Your task to perform on an android device: clear history in the chrome app Image 0: 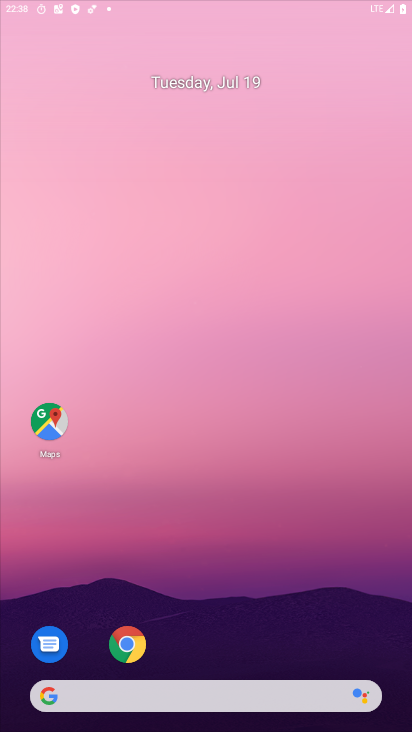
Step 0: press home button
Your task to perform on an android device: clear history in the chrome app Image 1: 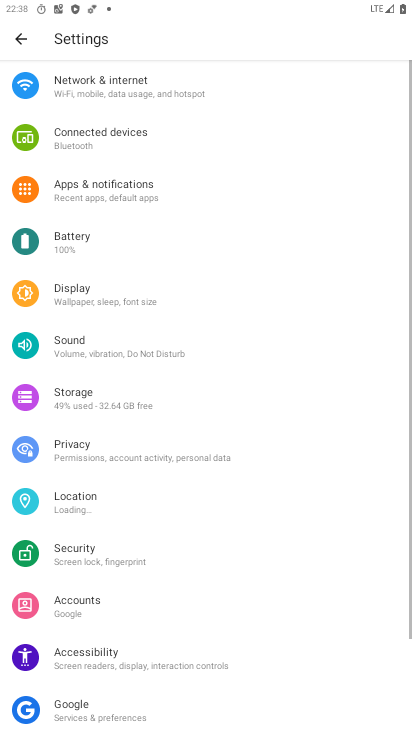
Step 1: drag from (315, 367) to (250, 57)
Your task to perform on an android device: clear history in the chrome app Image 2: 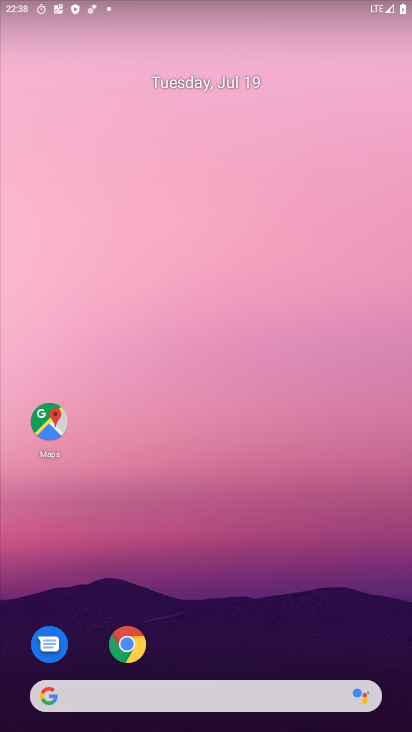
Step 2: drag from (290, 660) to (392, 14)
Your task to perform on an android device: clear history in the chrome app Image 3: 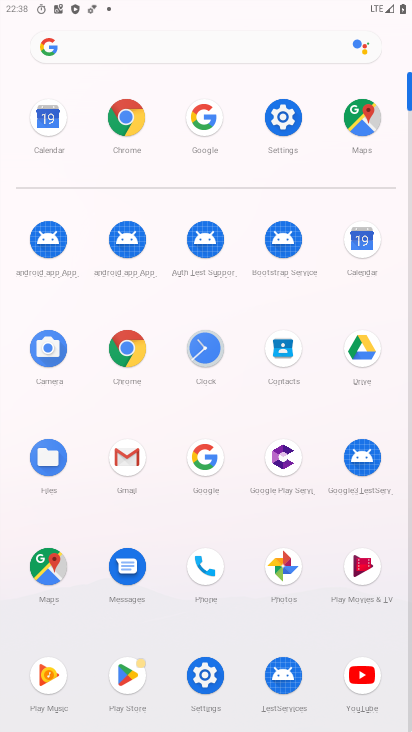
Step 3: click (123, 340)
Your task to perform on an android device: clear history in the chrome app Image 4: 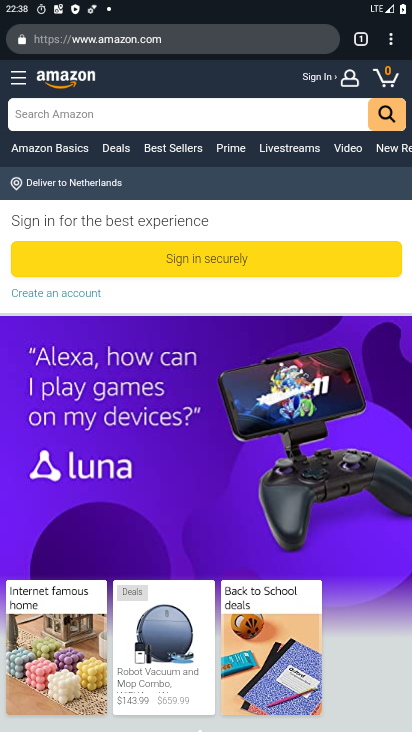
Step 4: drag from (396, 30) to (265, 228)
Your task to perform on an android device: clear history in the chrome app Image 5: 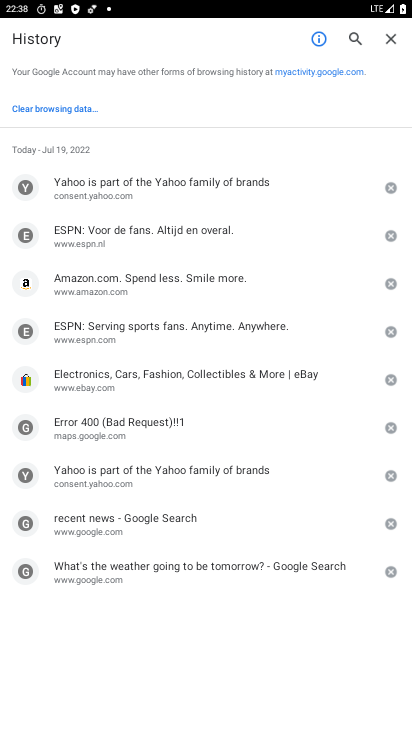
Step 5: click (48, 111)
Your task to perform on an android device: clear history in the chrome app Image 6: 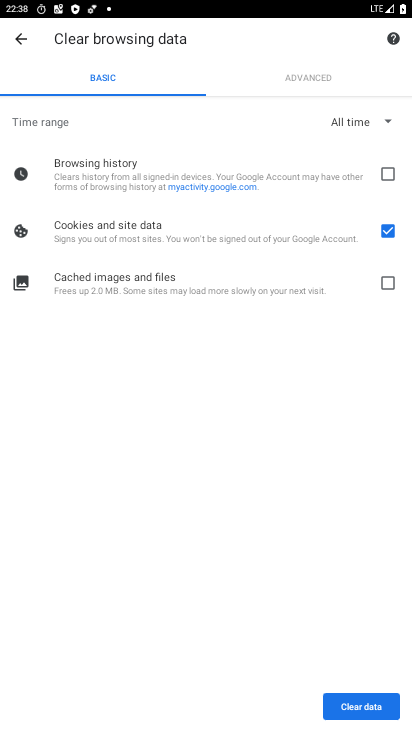
Step 6: click (299, 187)
Your task to perform on an android device: clear history in the chrome app Image 7: 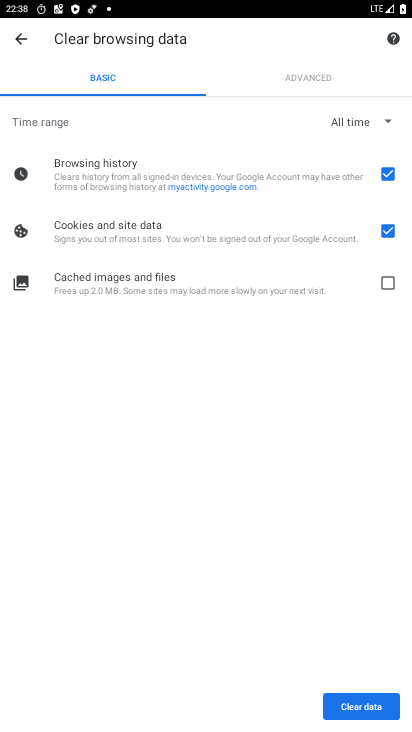
Step 7: click (358, 700)
Your task to perform on an android device: clear history in the chrome app Image 8: 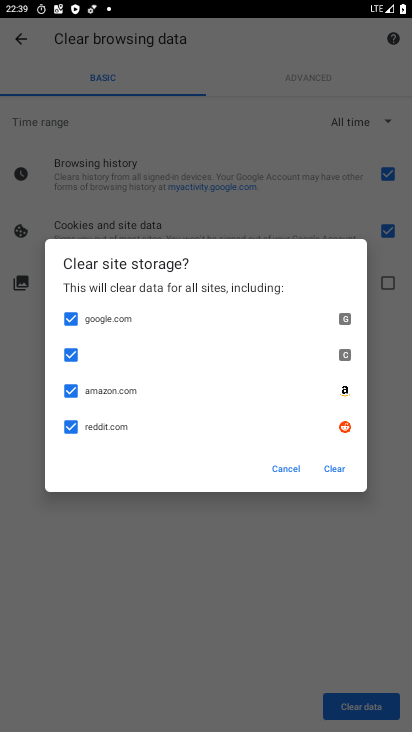
Step 8: click (341, 469)
Your task to perform on an android device: clear history in the chrome app Image 9: 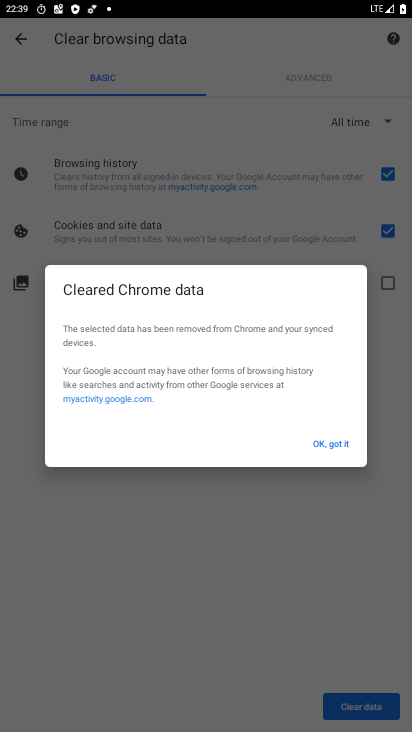
Step 9: click (312, 444)
Your task to perform on an android device: clear history in the chrome app Image 10: 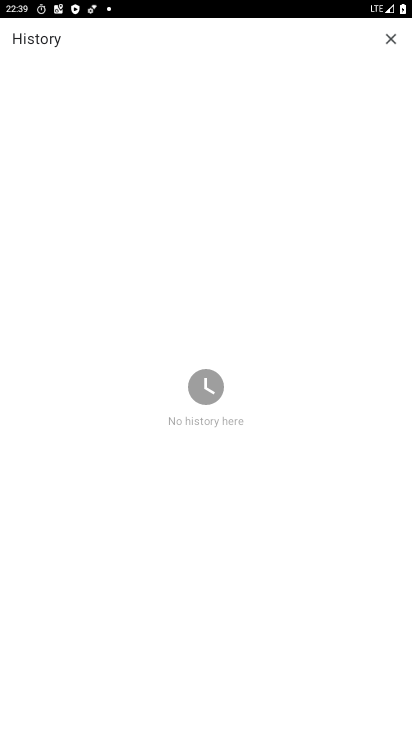
Step 10: task complete